Your task to perform on an android device: Open the web browser Image 0: 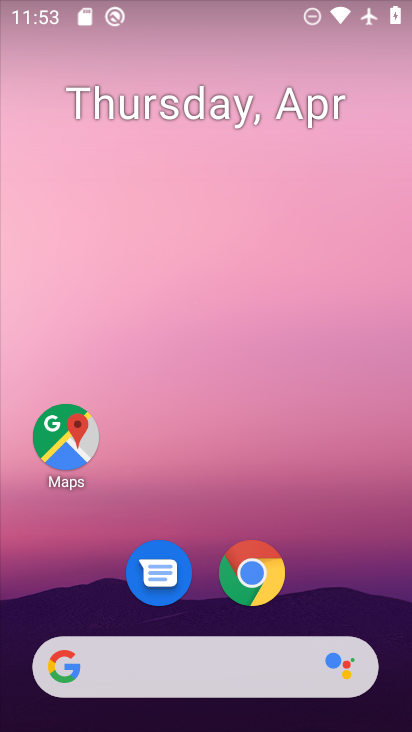
Step 0: click (263, 587)
Your task to perform on an android device: Open the web browser Image 1: 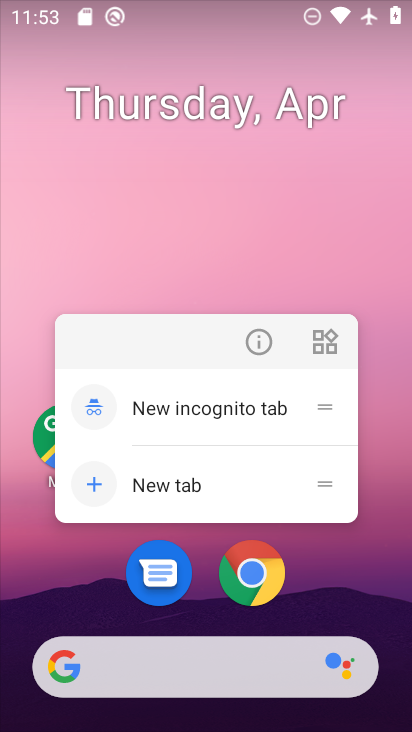
Step 1: click (264, 597)
Your task to perform on an android device: Open the web browser Image 2: 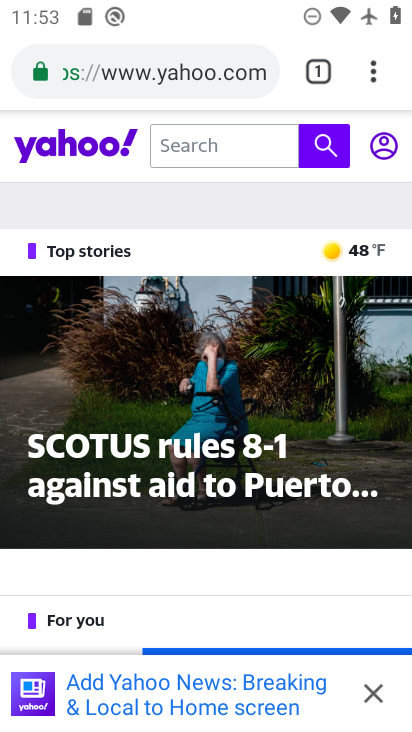
Step 2: task complete